Your task to perform on an android device: Go to eBay Image 0: 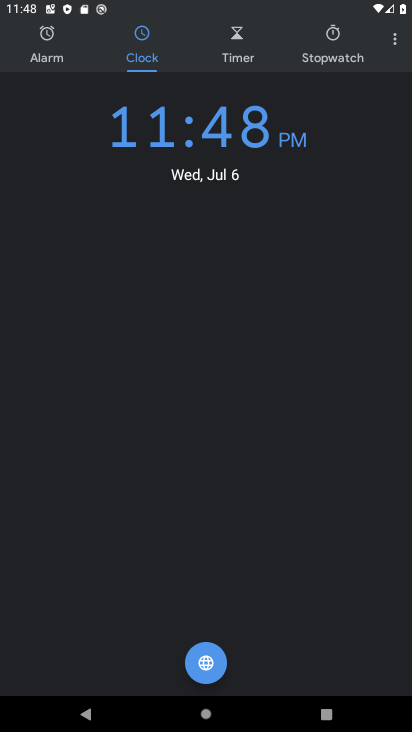
Step 0: press home button
Your task to perform on an android device: Go to eBay Image 1: 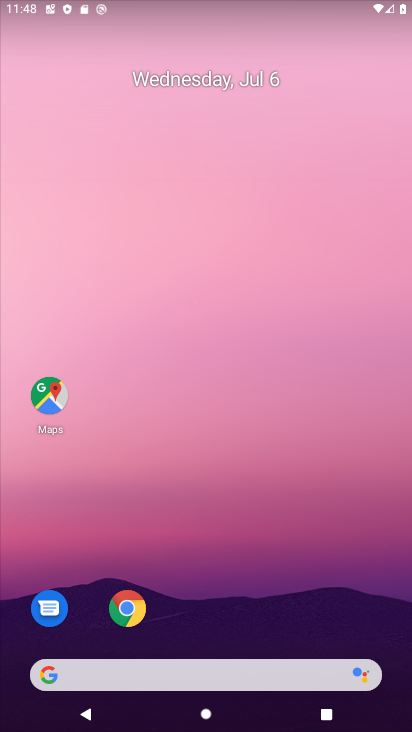
Step 1: click (127, 598)
Your task to perform on an android device: Go to eBay Image 2: 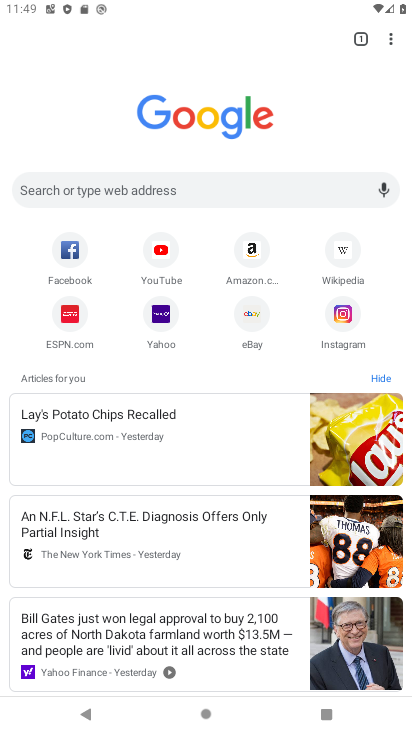
Step 2: click (248, 313)
Your task to perform on an android device: Go to eBay Image 3: 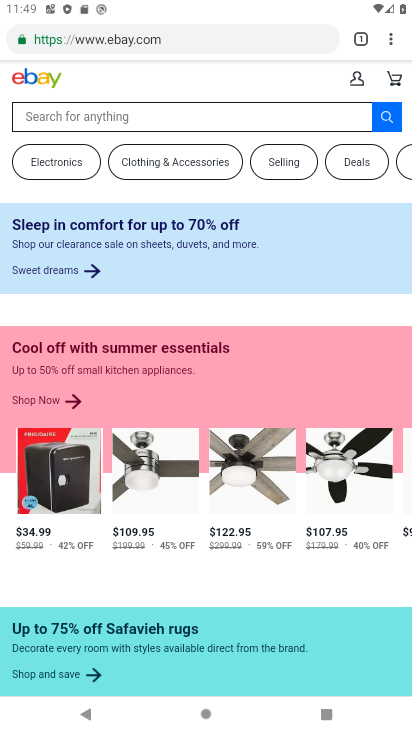
Step 3: task complete